Your task to perform on an android device: Open Chrome and go to the settings page Image 0: 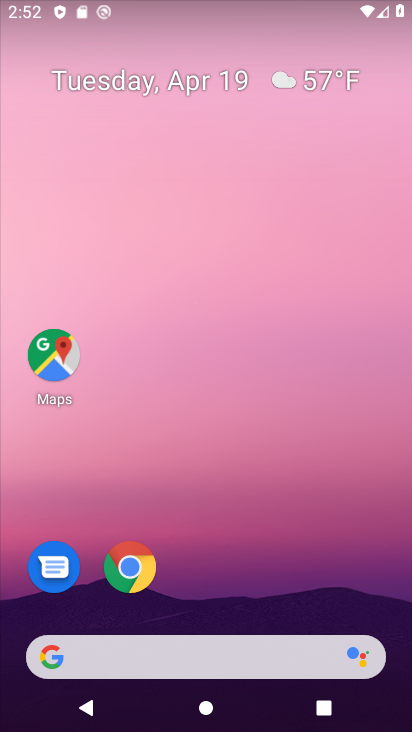
Step 0: drag from (380, 588) to (396, 85)
Your task to perform on an android device: Open Chrome and go to the settings page Image 1: 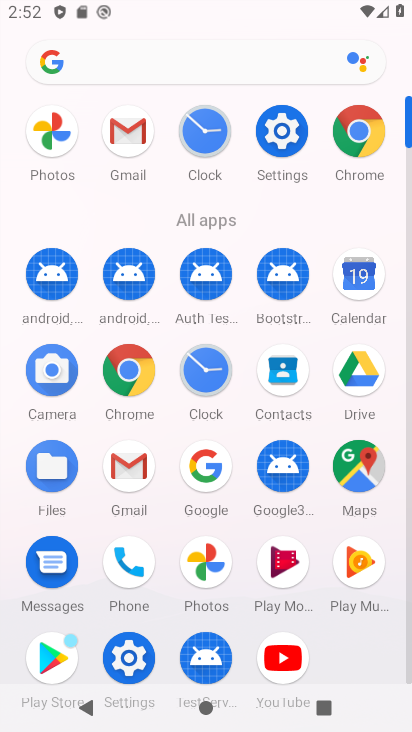
Step 1: click (372, 117)
Your task to perform on an android device: Open Chrome and go to the settings page Image 2: 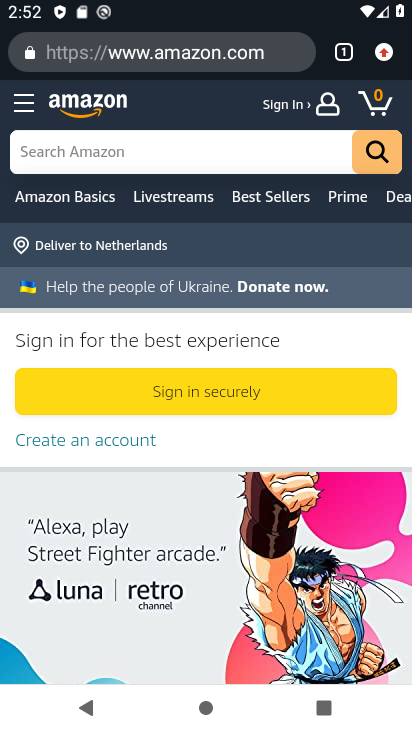
Step 2: click (384, 52)
Your task to perform on an android device: Open Chrome and go to the settings page Image 3: 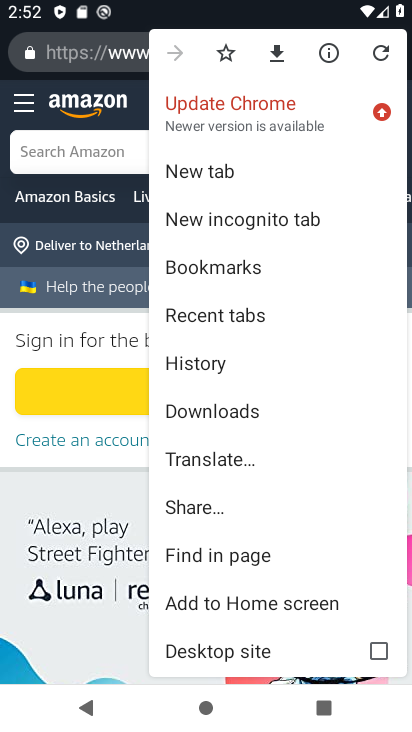
Step 3: drag from (355, 524) to (358, 343)
Your task to perform on an android device: Open Chrome and go to the settings page Image 4: 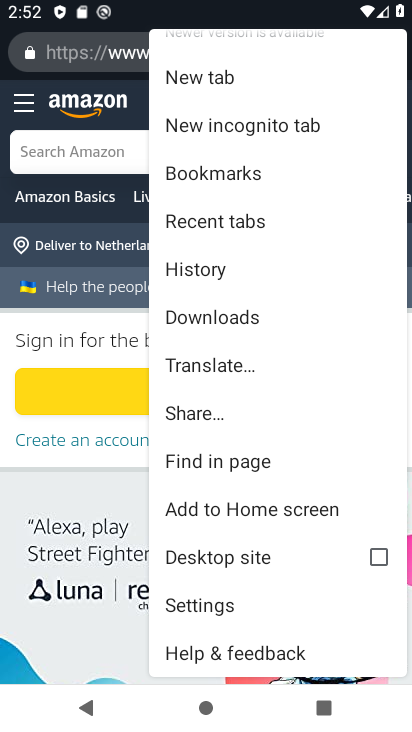
Step 4: click (219, 599)
Your task to perform on an android device: Open Chrome and go to the settings page Image 5: 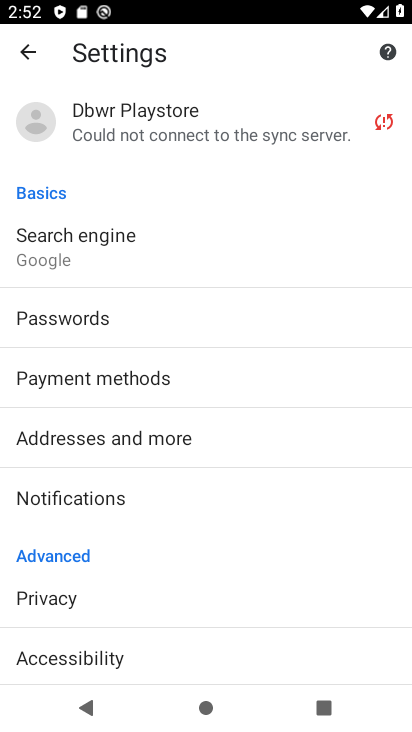
Step 5: task complete